Your task to perform on an android device: toggle show notifications on the lock screen Image 0: 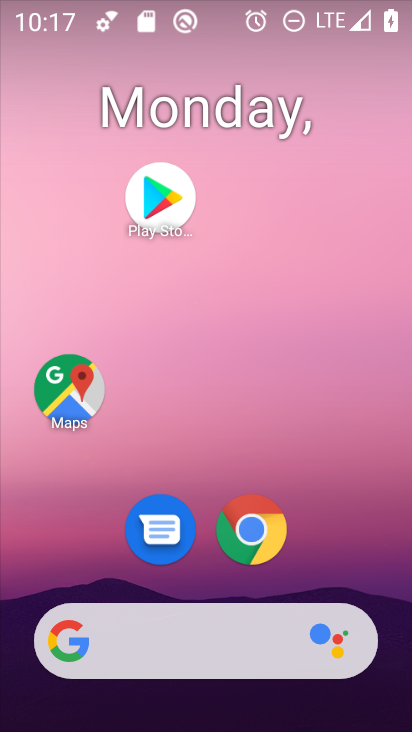
Step 0: drag from (339, 555) to (263, 159)
Your task to perform on an android device: toggle show notifications on the lock screen Image 1: 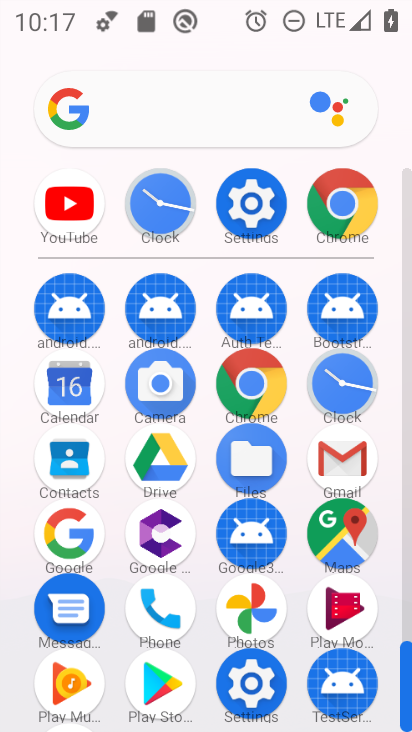
Step 1: click (255, 205)
Your task to perform on an android device: toggle show notifications on the lock screen Image 2: 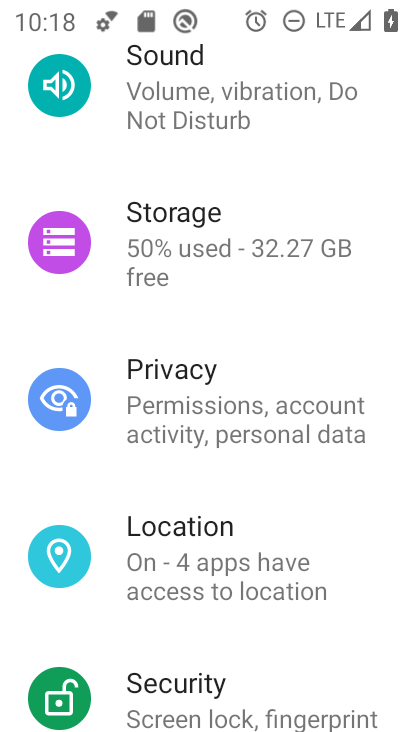
Step 2: drag from (209, 169) to (194, 619)
Your task to perform on an android device: toggle show notifications on the lock screen Image 3: 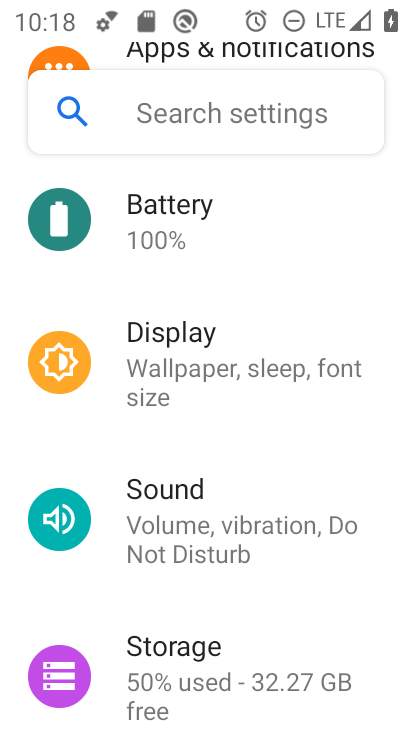
Step 3: drag from (163, 268) to (152, 702)
Your task to perform on an android device: toggle show notifications on the lock screen Image 4: 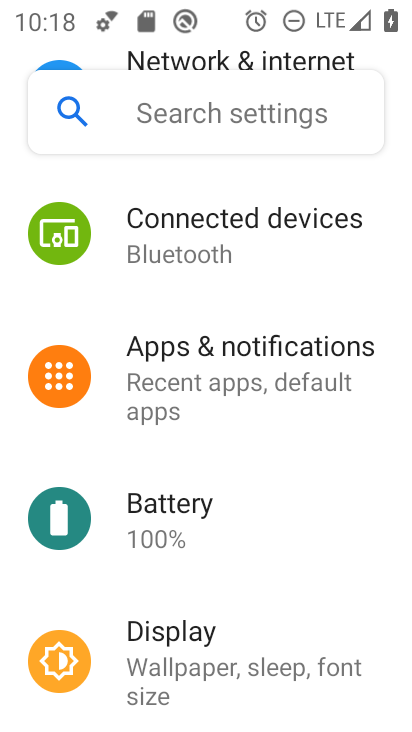
Step 4: click (216, 345)
Your task to perform on an android device: toggle show notifications on the lock screen Image 5: 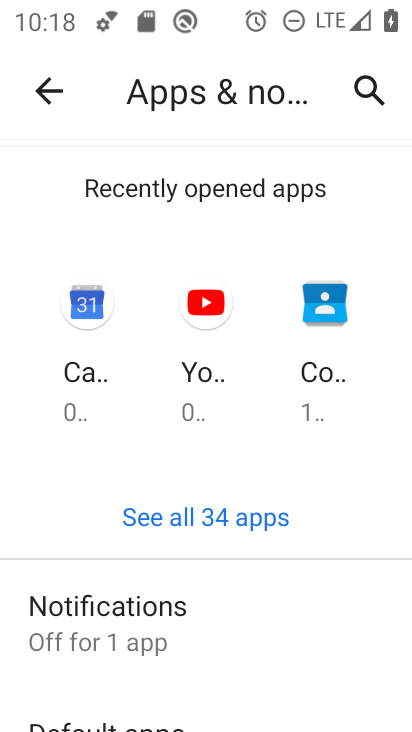
Step 5: drag from (242, 585) to (178, 334)
Your task to perform on an android device: toggle show notifications on the lock screen Image 6: 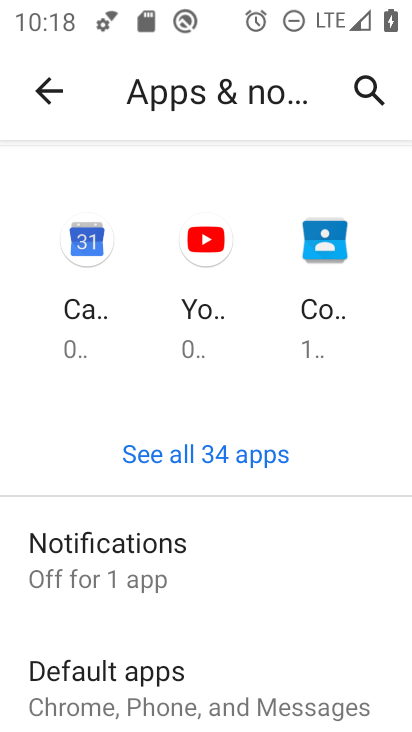
Step 6: drag from (256, 561) to (208, 320)
Your task to perform on an android device: toggle show notifications on the lock screen Image 7: 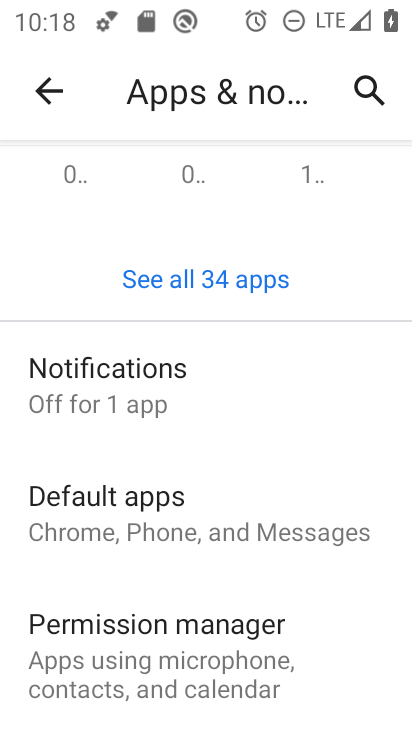
Step 7: click (124, 368)
Your task to perform on an android device: toggle show notifications on the lock screen Image 8: 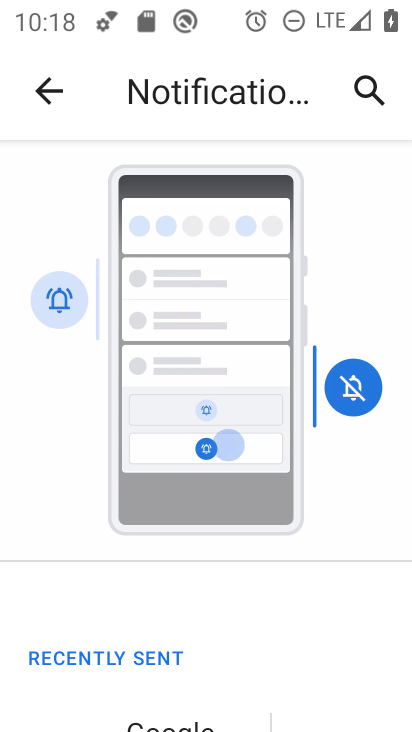
Step 8: drag from (315, 612) to (282, 232)
Your task to perform on an android device: toggle show notifications on the lock screen Image 9: 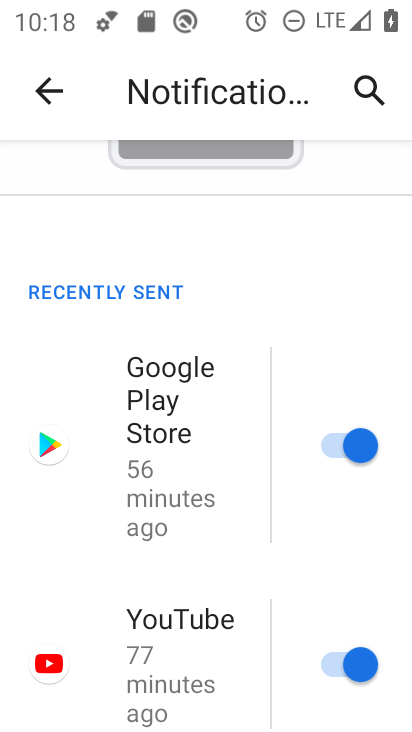
Step 9: drag from (282, 550) to (222, 216)
Your task to perform on an android device: toggle show notifications on the lock screen Image 10: 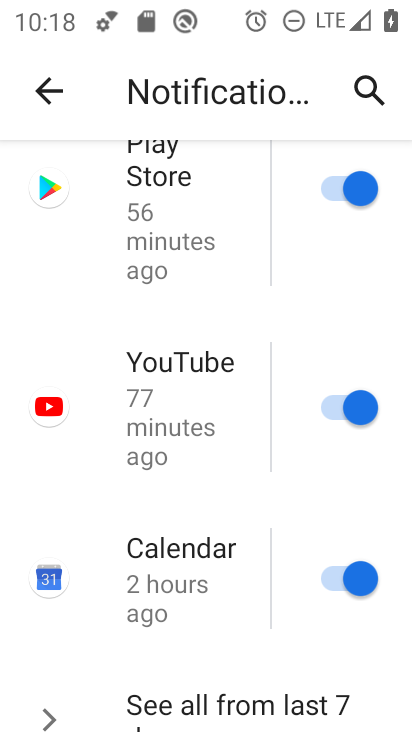
Step 10: drag from (247, 490) to (227, 56)
Your task to perform on an android device: toggle show notifications on the lock screen Image 11: 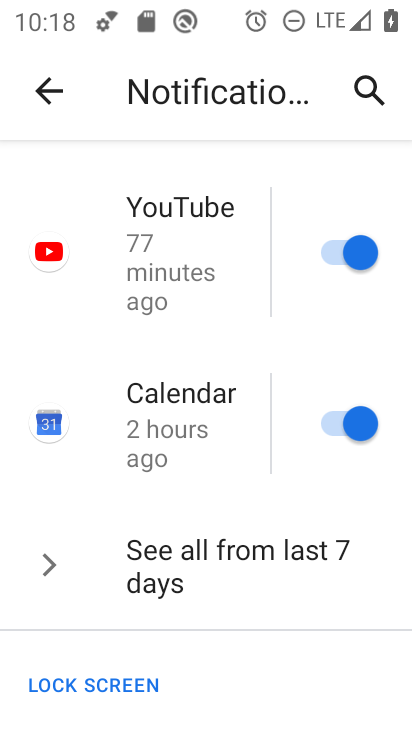
Step 11: drag from (230, 601) to (81, 87)
Your task to perform on an android device: toggle show notifications on the lock screen Image 12: 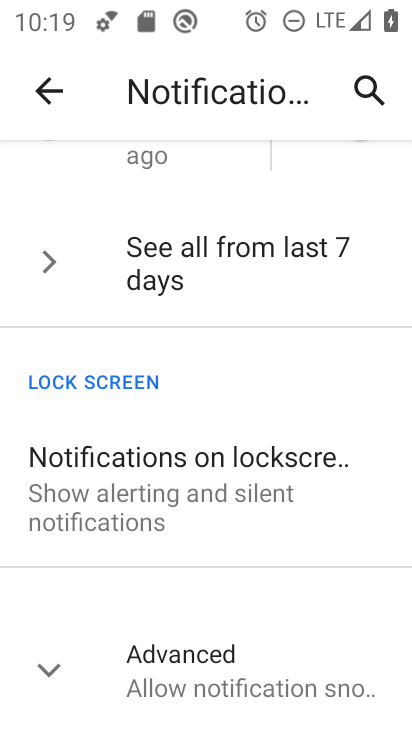
Step 12: click (225, 453)
Your task to perform on an android device: toggle show notifications on the lock screen Image 13: 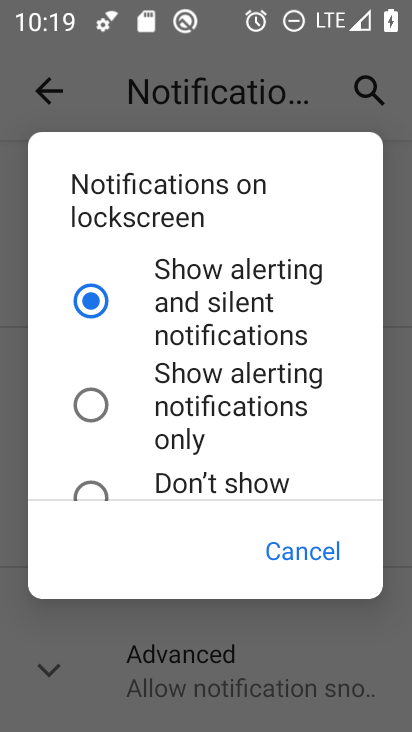
Step 13: click (95, 490)
Your task to perform on an android device: toggle show notifications on the lock screen Image 14: 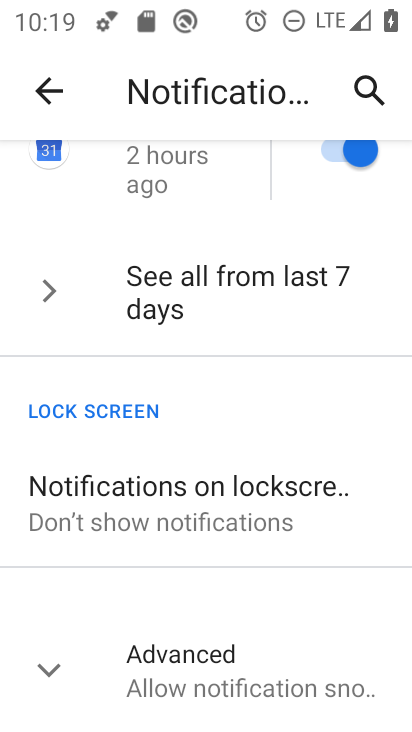
Step 14: task complete